Your task to perform on an android device: change alarm snooze length Image 0: 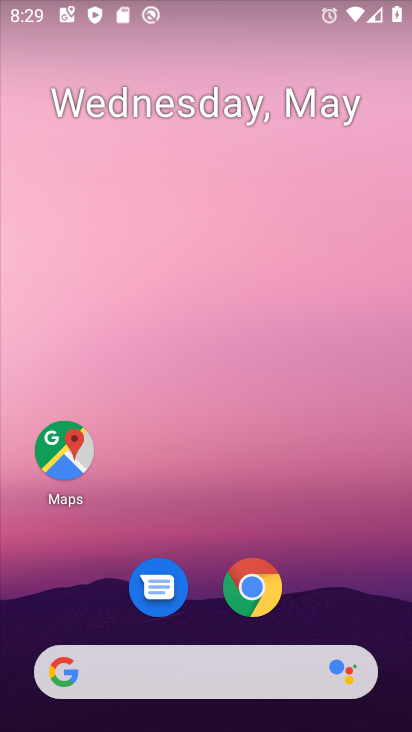
Step 0: drag from (204, 607) to (321, 61)
Your task to perform on an android device: change alarm snooze length Image 1: 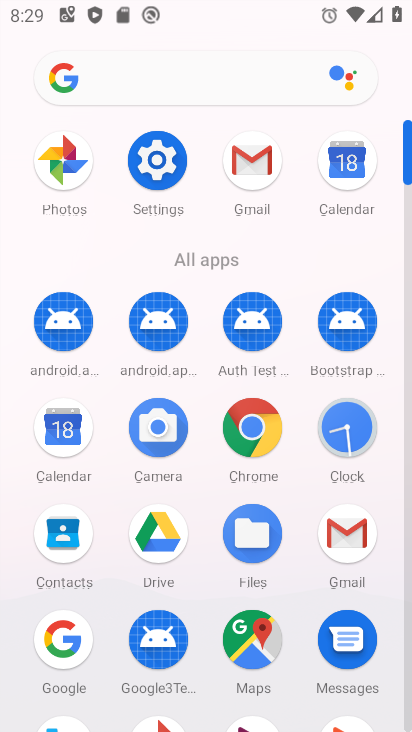
Step 1: click (365, 431)
Your task to perform on an android device: change alarm snooze length Image 2: 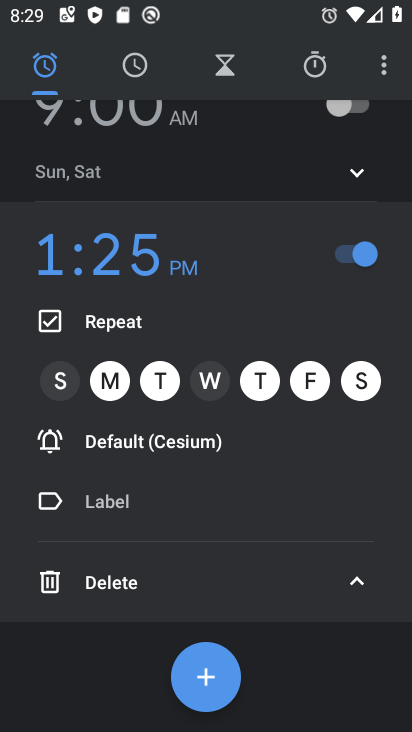
Step 2: click (390, 67)
Your task to perform on an android device: change alarm snooze length Image 3: 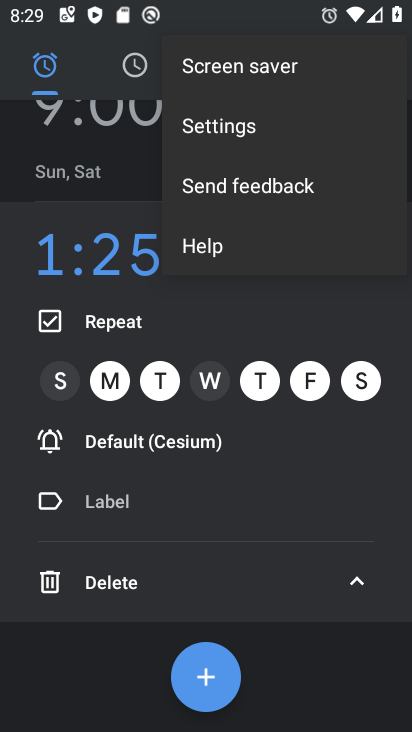
Step 3: click (219, 137)
Your task to perform on an android device: change alarm snooze length Image 4: 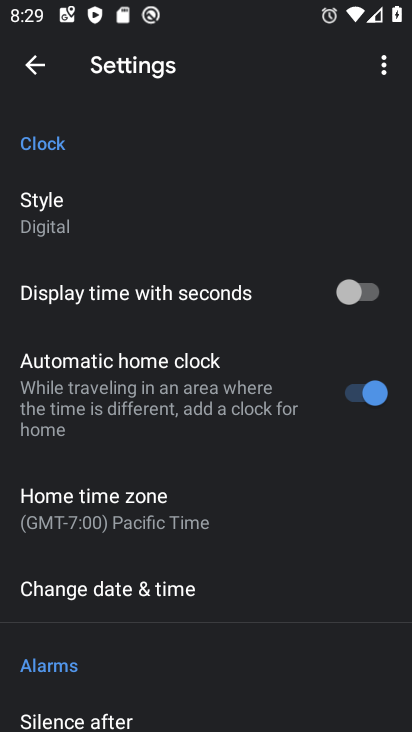
Step 4: drag from (113, 562) to (244, 104)
Your task to perform on an android device: change alarm snooze length Image 5: 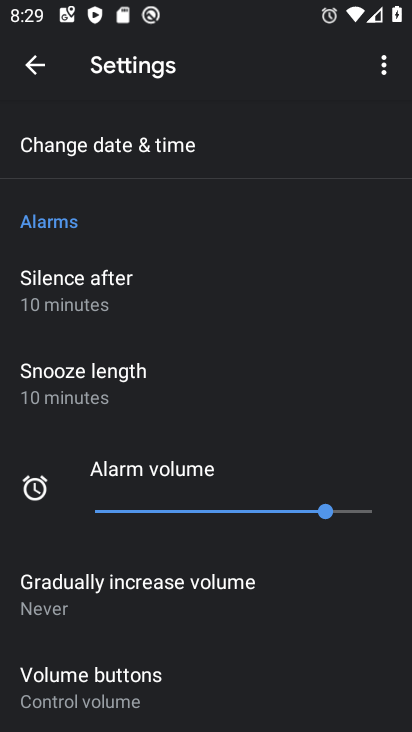
Step 5: click (118, 394)
Your task to perform on an android device: change alarm snooze length Image 6: 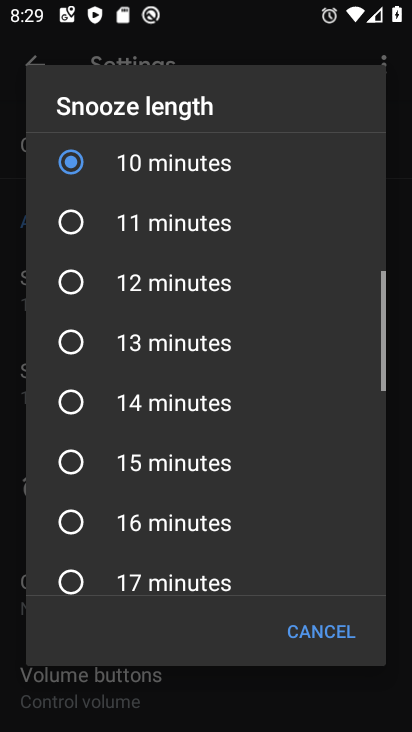
Step 6: click (101, 406)
Your task to perform on an android device: change alarm snooze length Image 7: 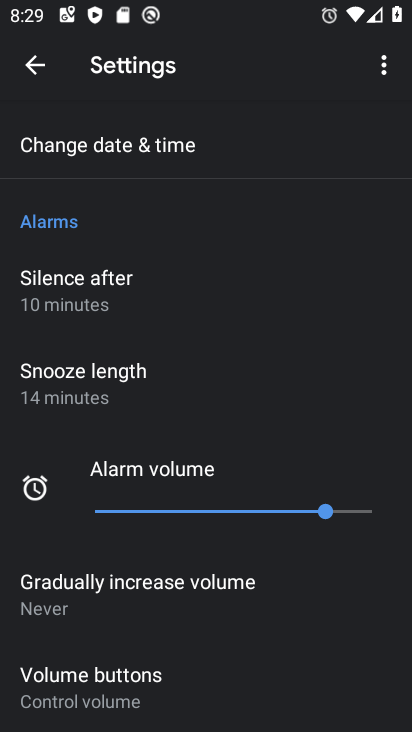
Step 7: task complete